Your task to perform on an android device: star an email in the gmail app Image 0: 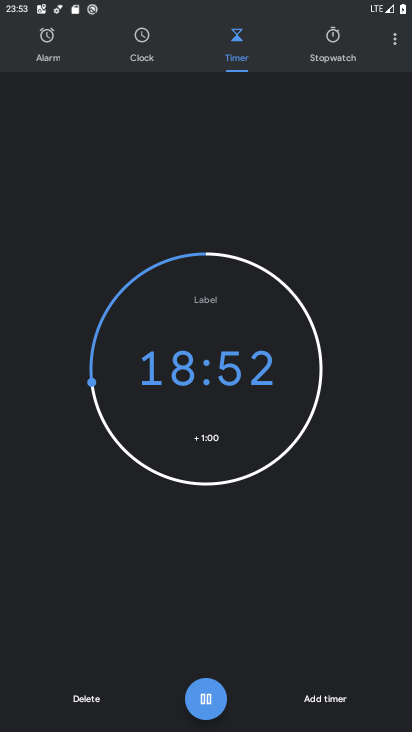
Step 0: press home button
Your task to perform on an android device: star an email in the gmail app Image 1: 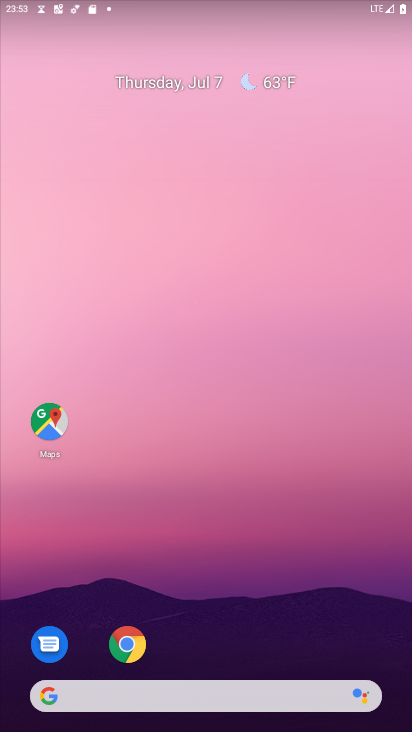
Step 1: drag from (245, 728) to (245, 154)
Your task to perform on an android device: star an email in the gmail app Image 2: 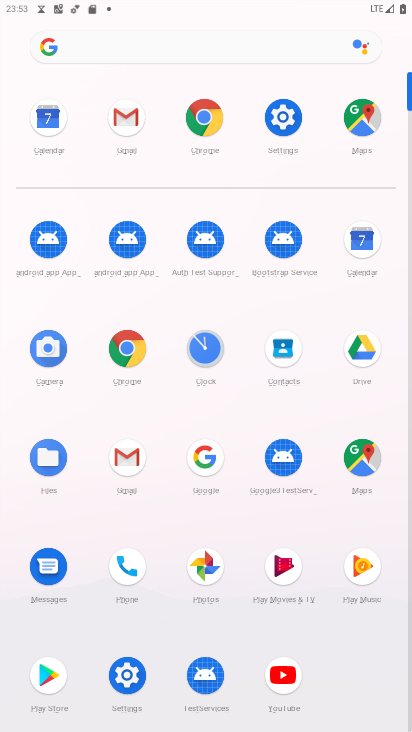
Step 2: click (126, 459)
Your task to perform on an android device: star an email in the gmail app Image 3: 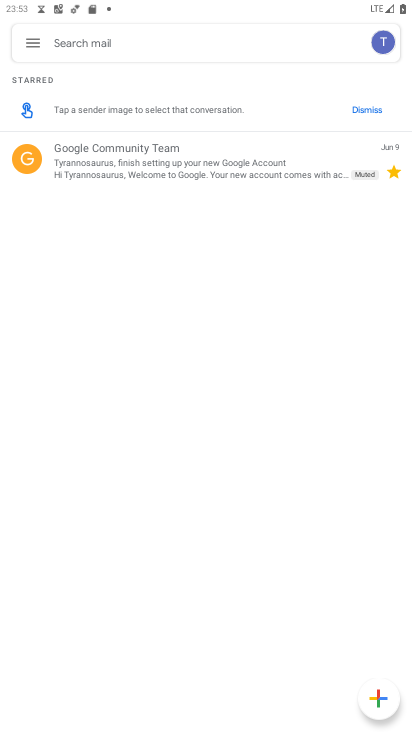
Step 3: task complete